Your task to perform on an android device: How much does a 3 bedroom apartment rent for in Denver? Image 0: 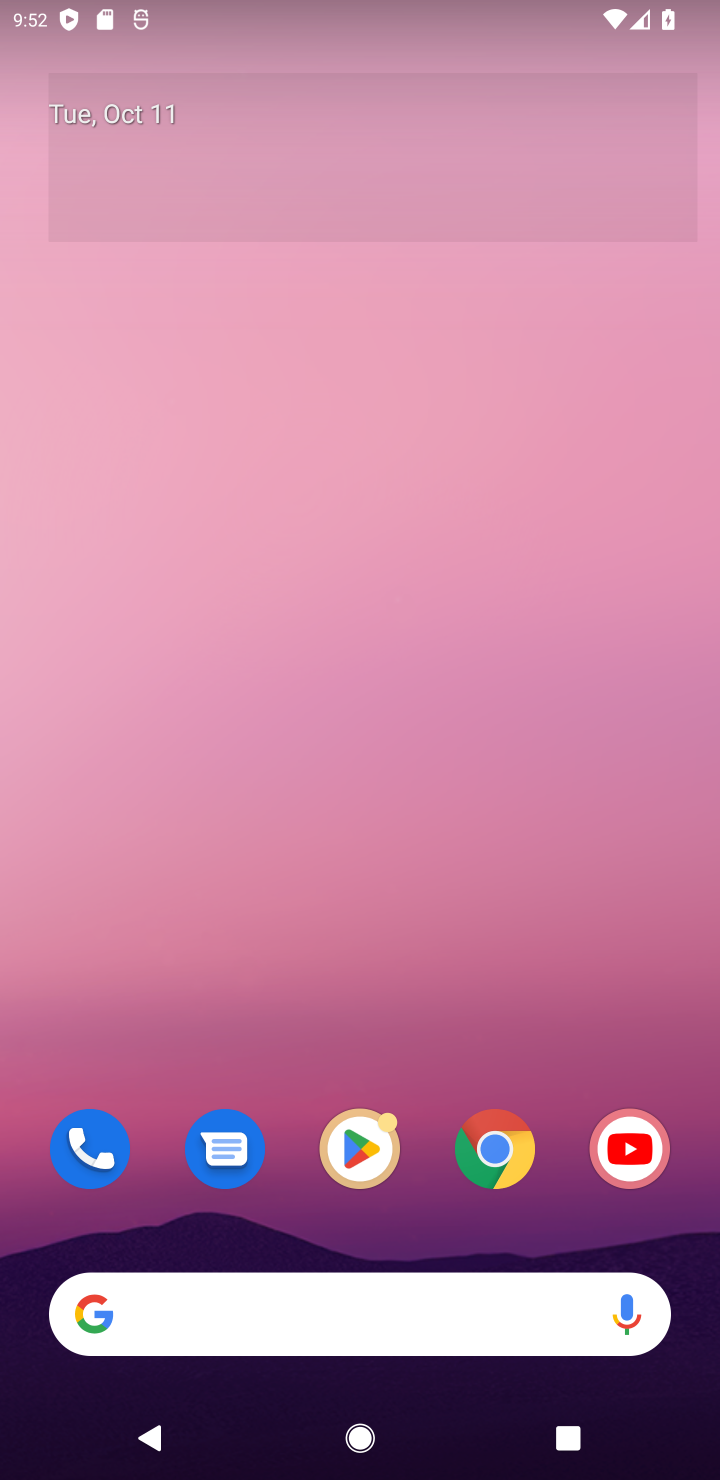
Step 0: drag from (376, 1236) to (355, 461)
Your task to perform on an android device: How much does a 3 bedroom apartment rent for in Denver? Image 1: 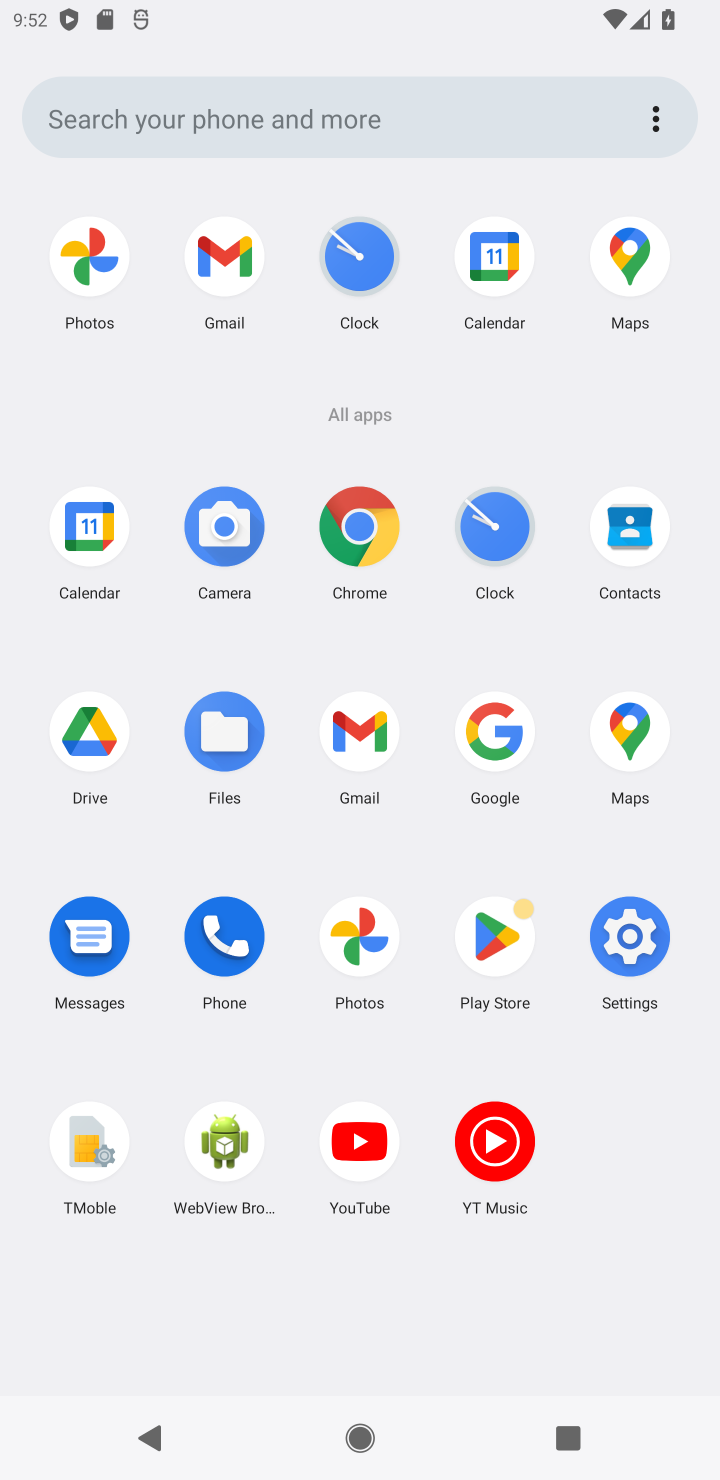
Step 1: click (362, 551)
Your task to perform on an android device: How much does a 3 bedroom apartment rent for in Denver? Image 2: 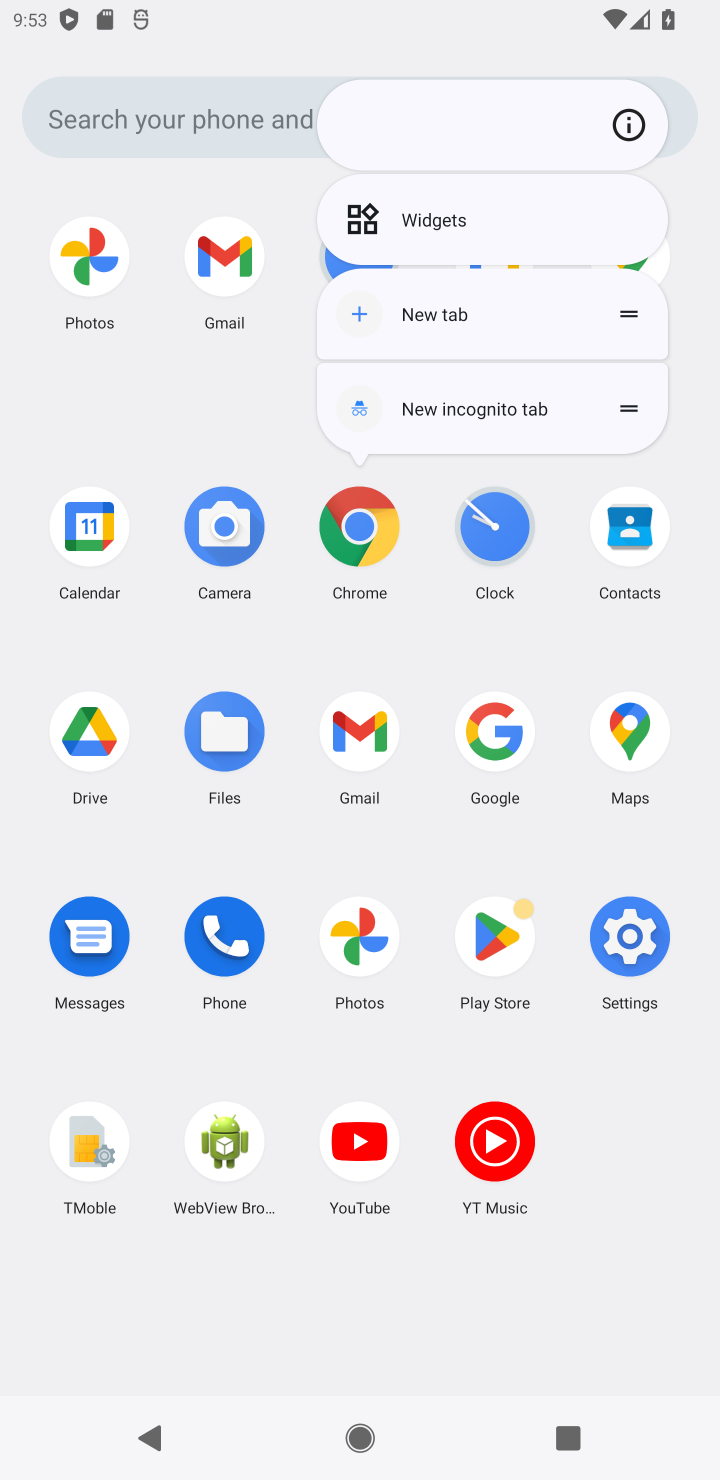
Step 2: click (355, 547)
Your task to perform on an android device: How much does a 3 bedroom apartment rent for in Denver? Image 3: 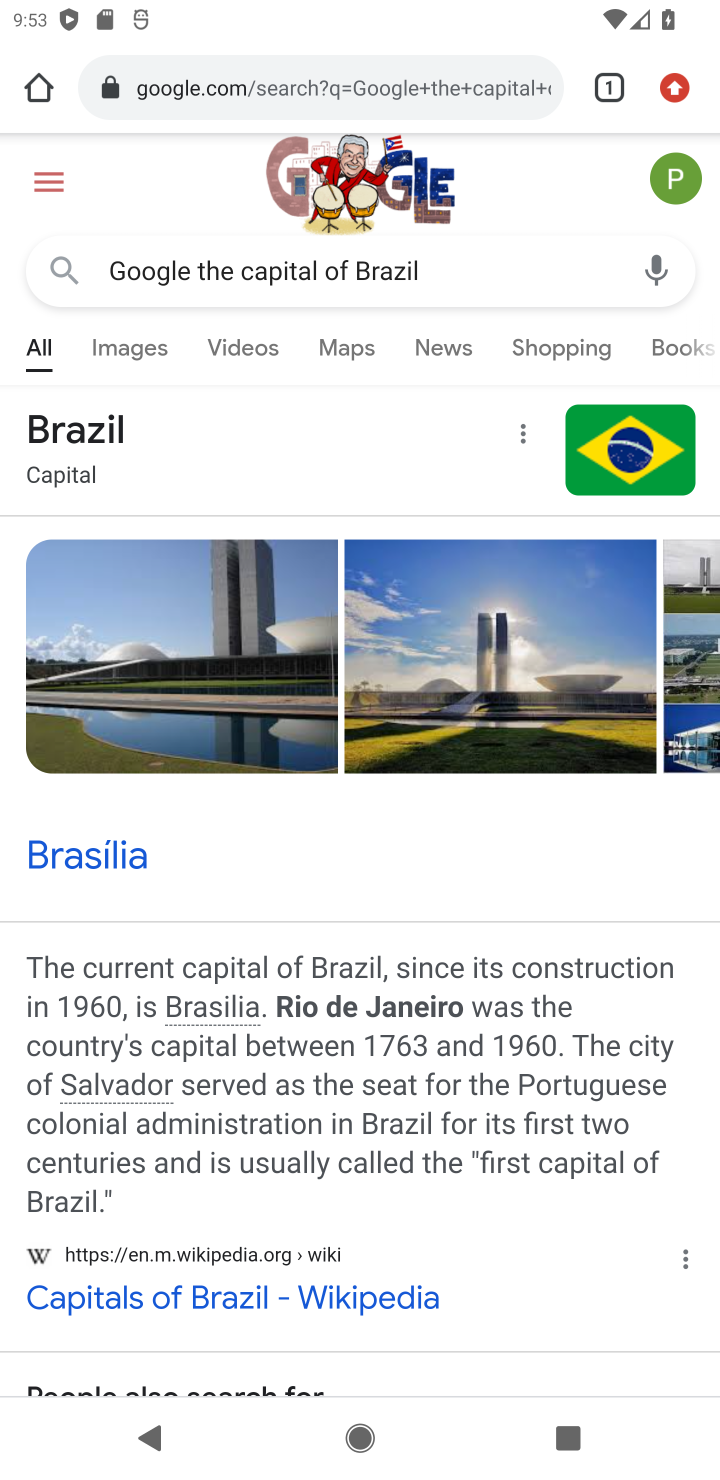
Step 3: click (390, 83)
Your task to perform on an android device: How much does a 3 bedroom apartment rent for in Denver? Image 4: 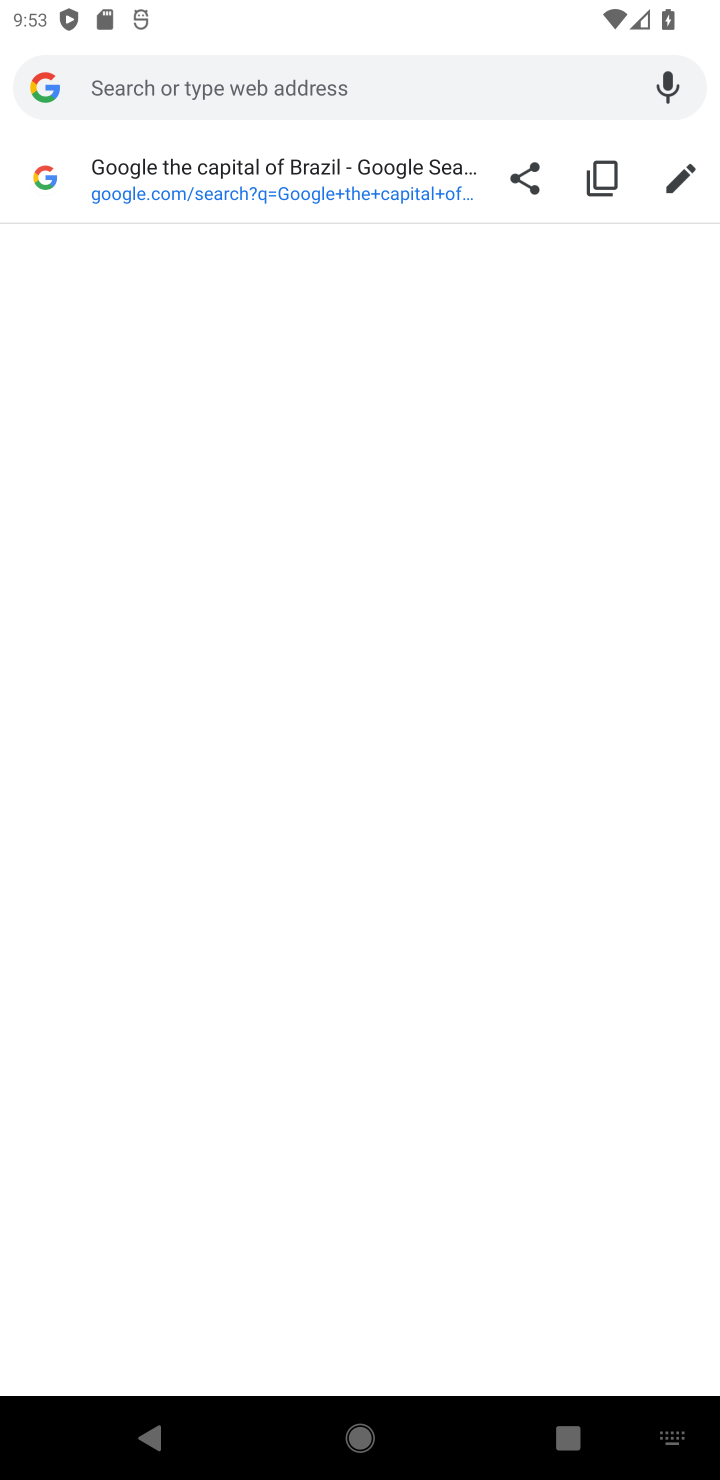
Step 4: type "How much does a 3 bedroom apartment rent for in Denver?"
Your task to perform on an android device: How much does a 3 bedroom apartment rent for in Denver? Image 5: 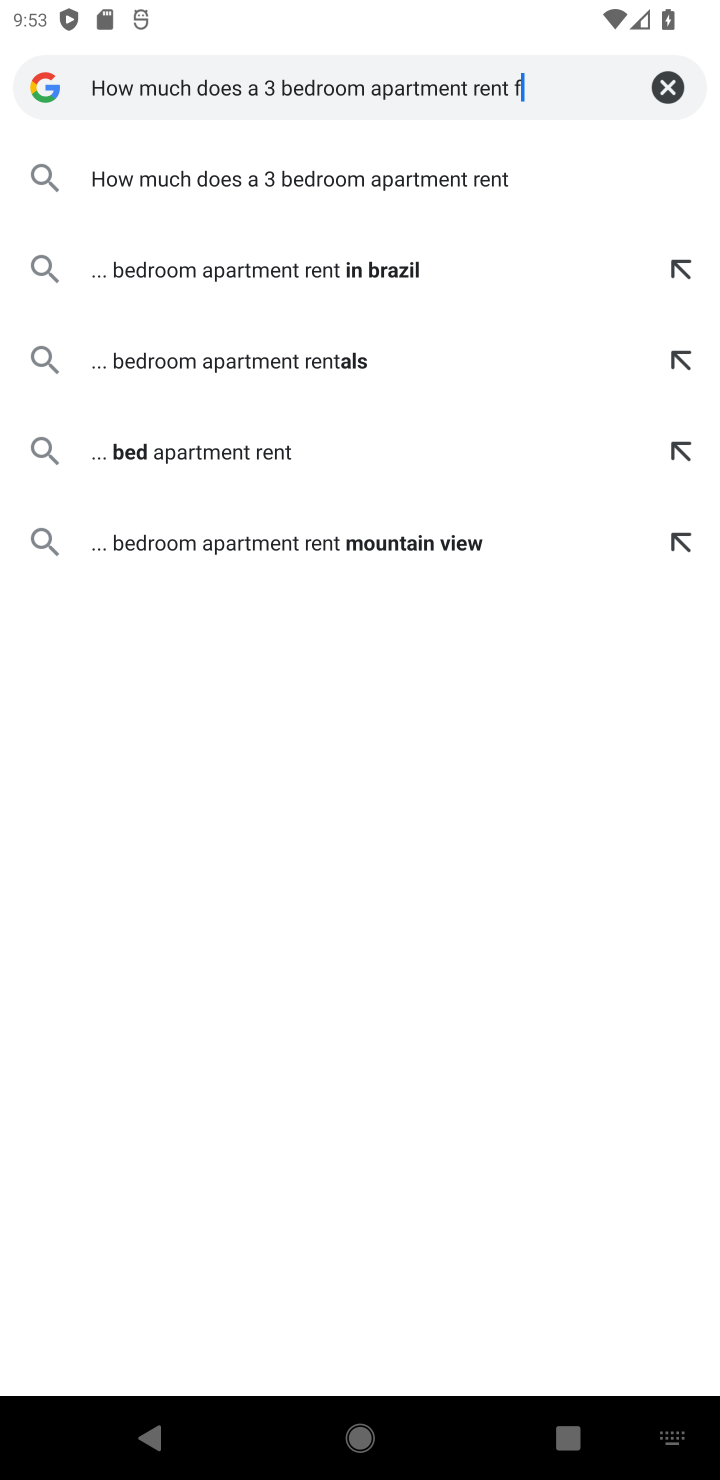
Step 5: press enter
Your task to perform on an android device: How much does a 3 bedroom apartment rent for in Denver? Image 6: 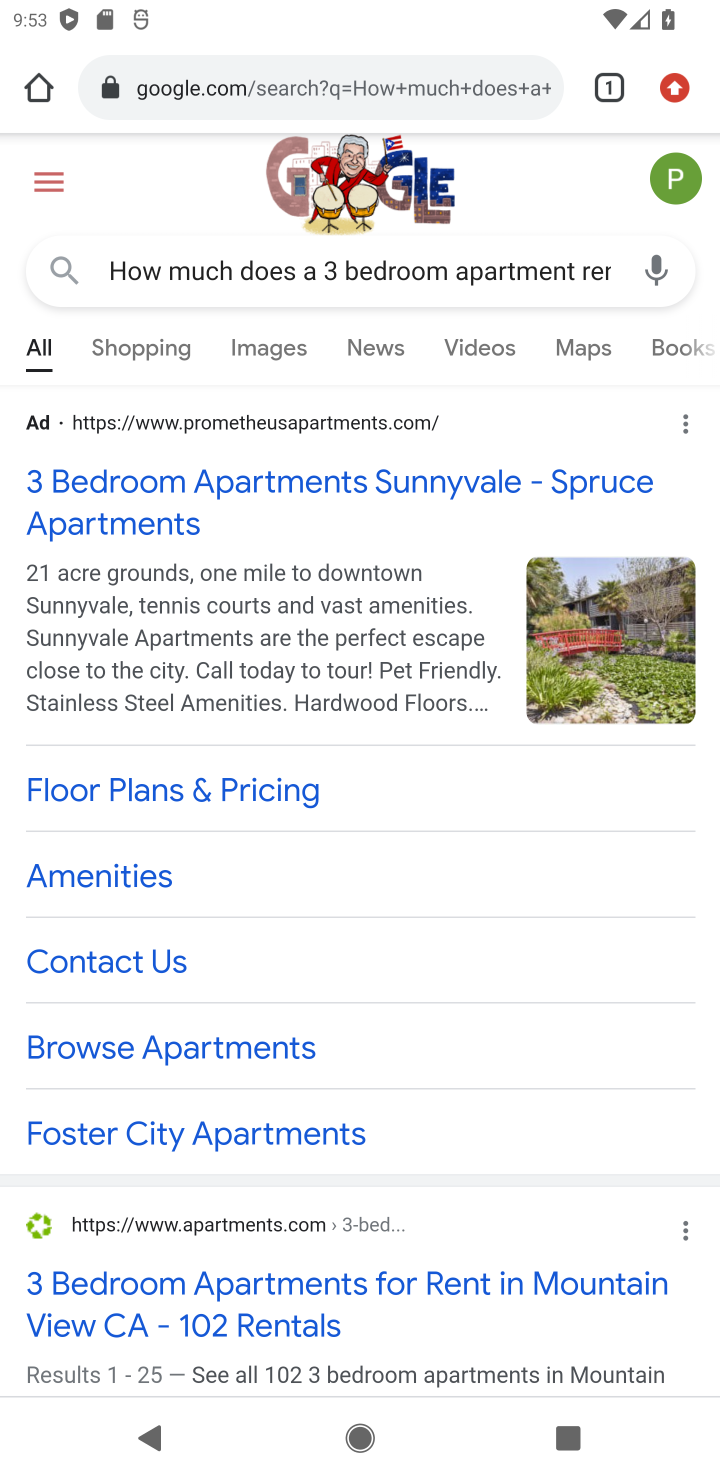
Step 6: click (58, 527)
Your task to perform on an android device: How much does a 3 bedroom apartment rent for in Denver? Image 7: 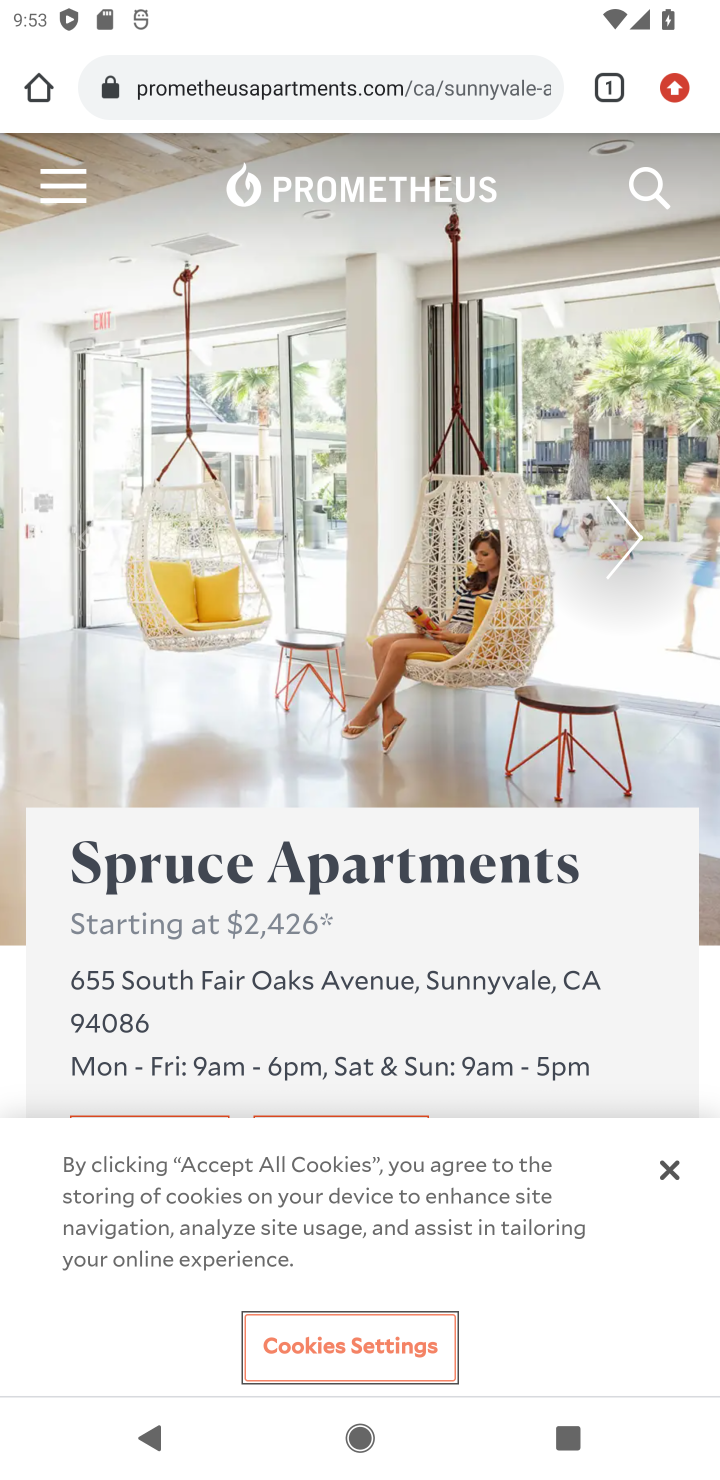
Step 7: task complete